Your task to perform on an android device: delete location history Image 0: 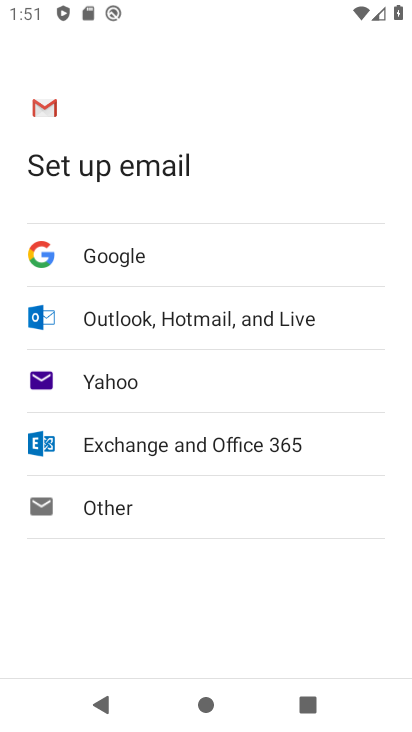
Step 0: press home button
Your task to perform on an android device: delete location history Image 1: 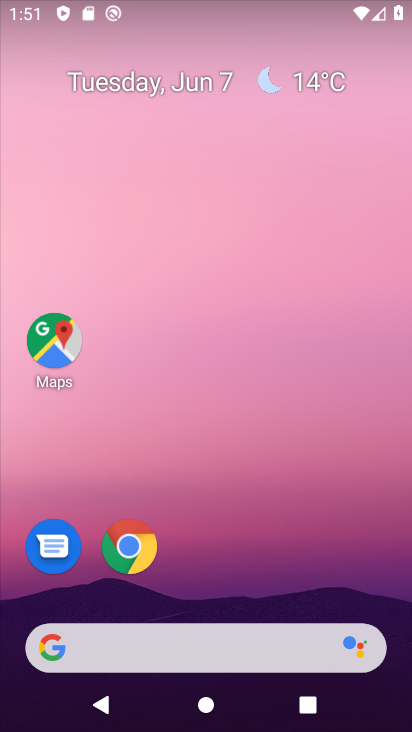
Step 1: click (50, 332)
Your task to perform on an android device: delete location history Image 2: 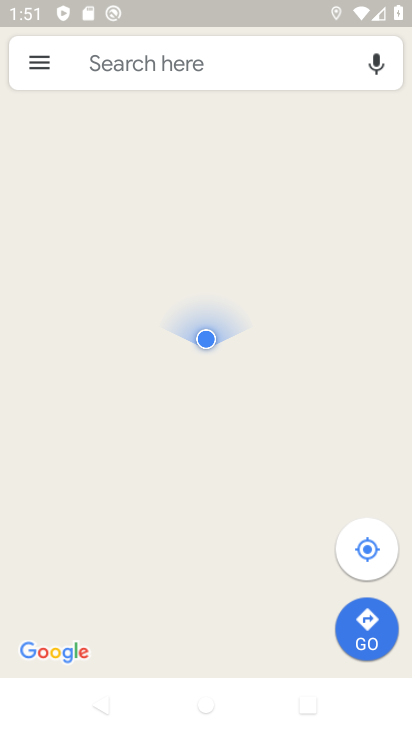
Step 2: click (45, 57)
Your task to perform on an android device: delete location history Image 3: 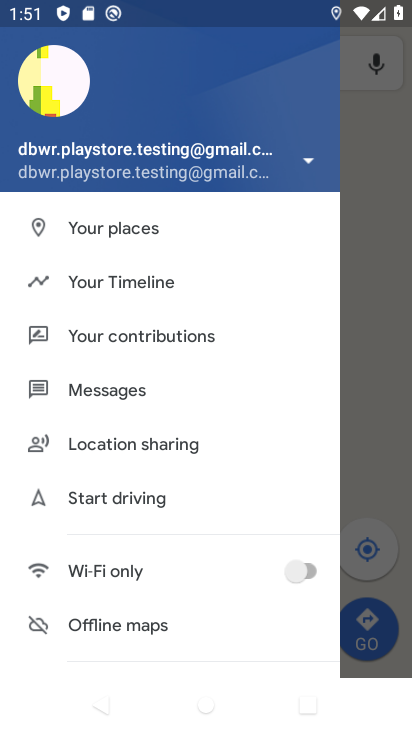
Step 3: click (206, 279)
Your task to perform on an android device: delete location history Image 4: 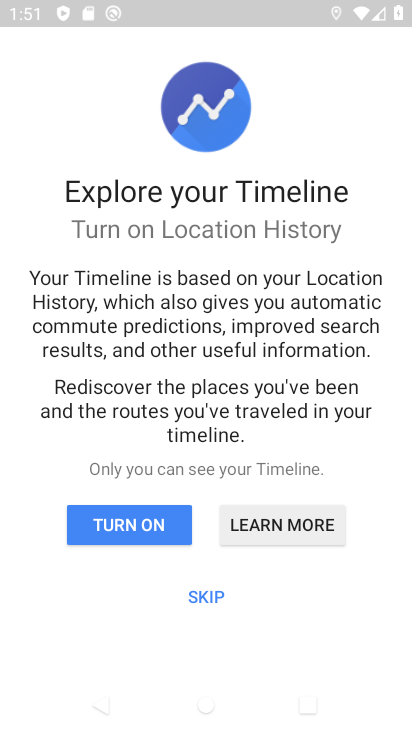
Step 4: click (129, 511)
Your task to perform on an android device: delete location history Image 5: 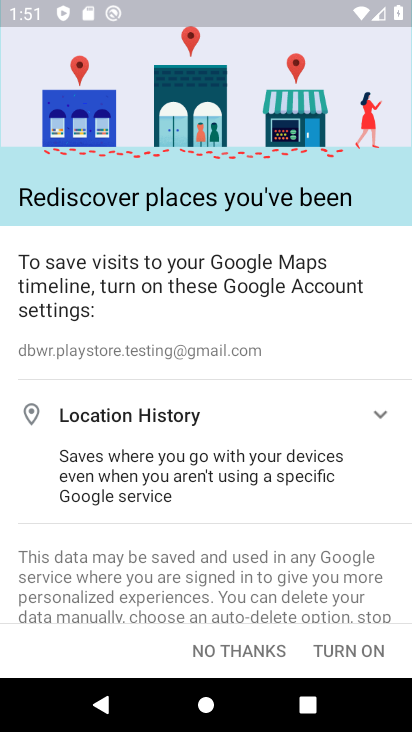
Step 5: click (363, 664)
Your task to perform on an android device: delete location history Image 6: 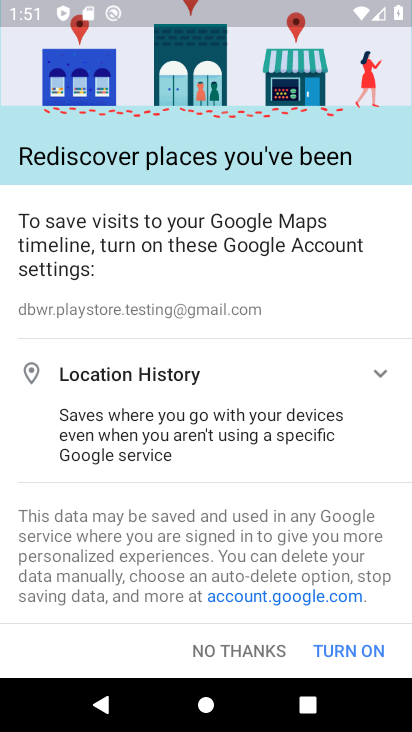
Step 6: click (363, 664)
Your task to perform on an android device: delete location history Image 7: 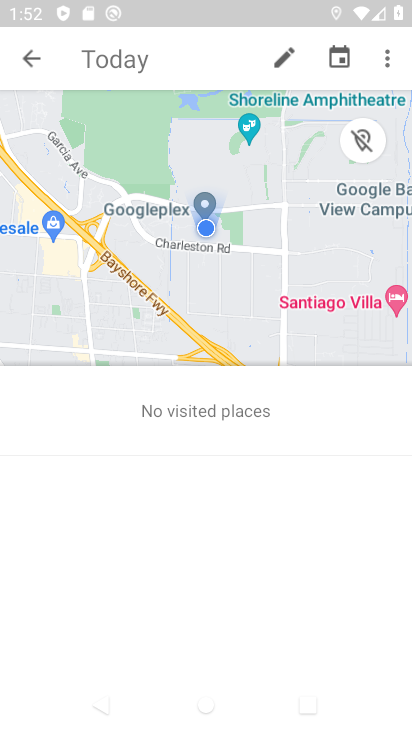
Step 7: click (365, 640)
Your task to perform on an android device: delete location history Image 8: 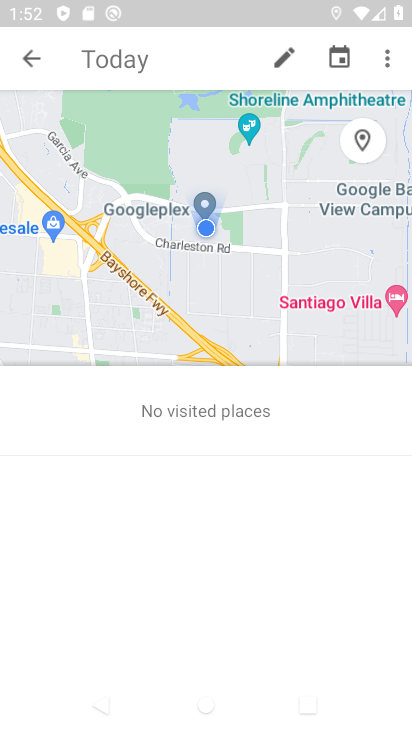
Step 8: click (365, 640)
Your task to perform on an android device: delete location history Image 9: 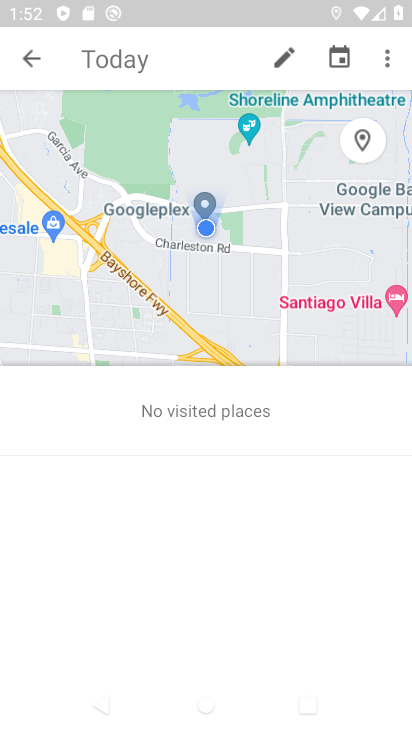
Step 9: click (390, 64)
Your task to perform on an android device: delete location history Image 10: 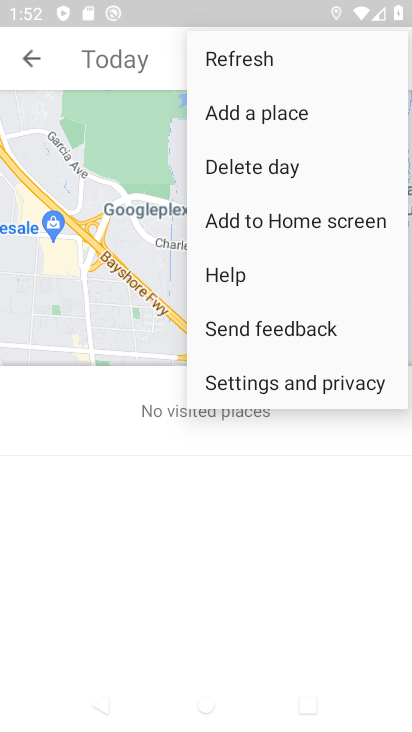
Step 10: click (259, 377)
Your task to perform on an android device: delete location history Image 11: 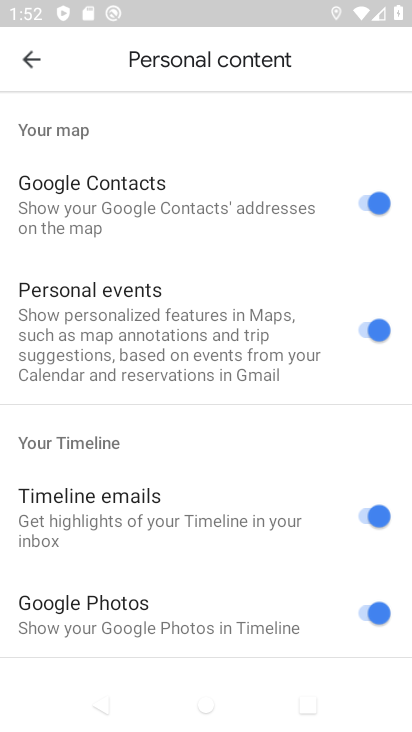
Step 11: click (259, 377)
Your task to perform on an android device: delete location history Image 12: 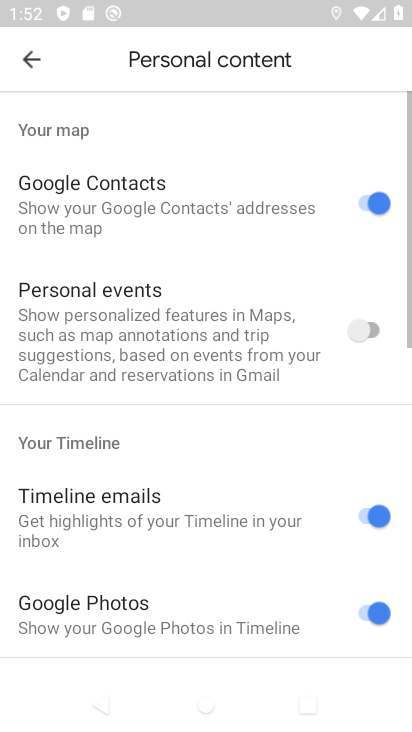
Step 12: drag from (169, 543) to (114, 221)
Your task to perform on an android device: delete location history Image 13: 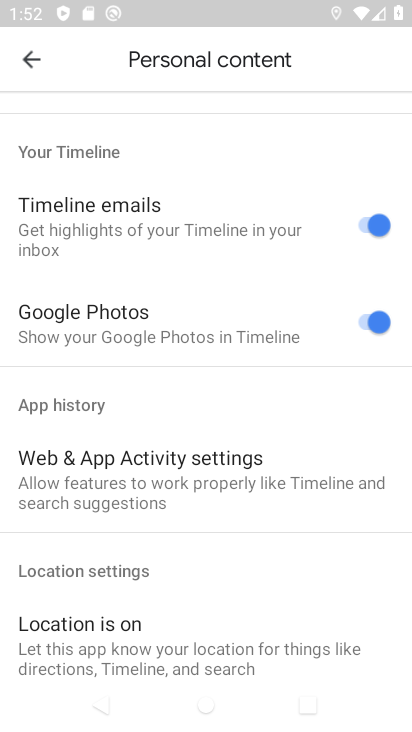
Step 13: drag from (161, 596) to (146, 281)
Your task to perform on an android device: delete location history Image 14: 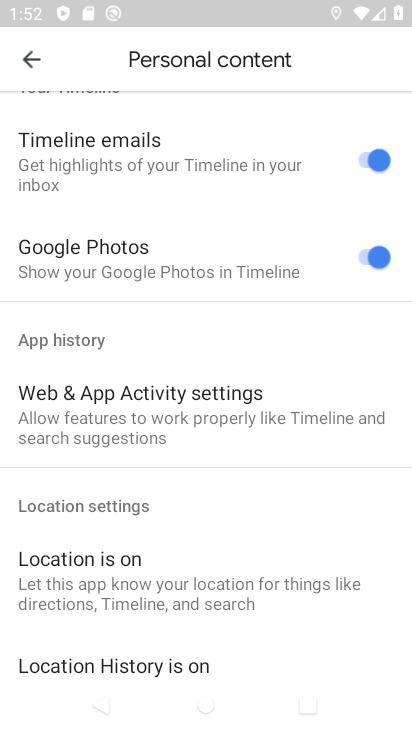
Step 14: drag from (137, 635) to (155, 293)
Your task to perform on an android device: delete location history Image 15: 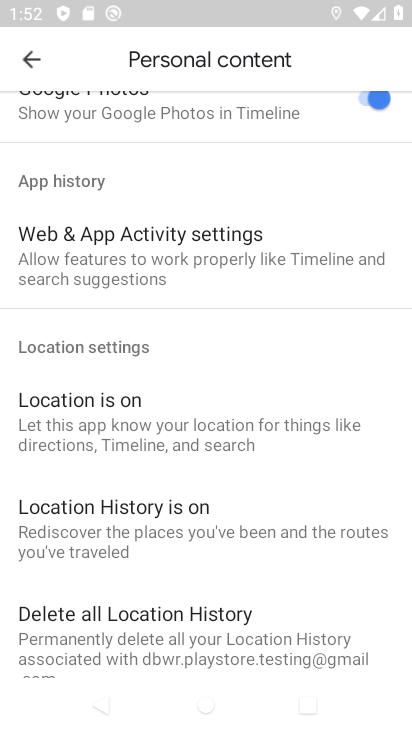
Step 15: click (175, 605)
Your task to perform on an android device: delete location history Image 16: 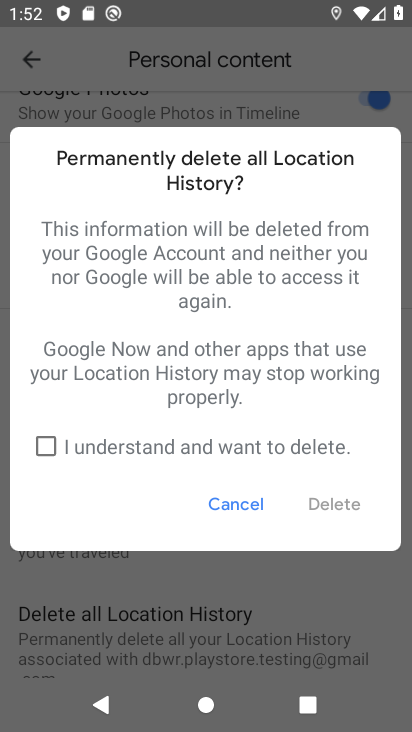
Step 16: click (40, 449)
Your task to perform on an android device: delete location history Image 17: 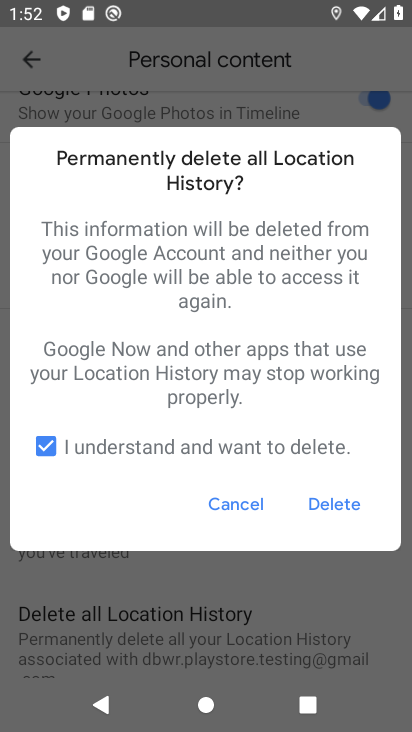
Step 17: click (349, 506)
Your task to perform on an android device: delete location history Image 18: 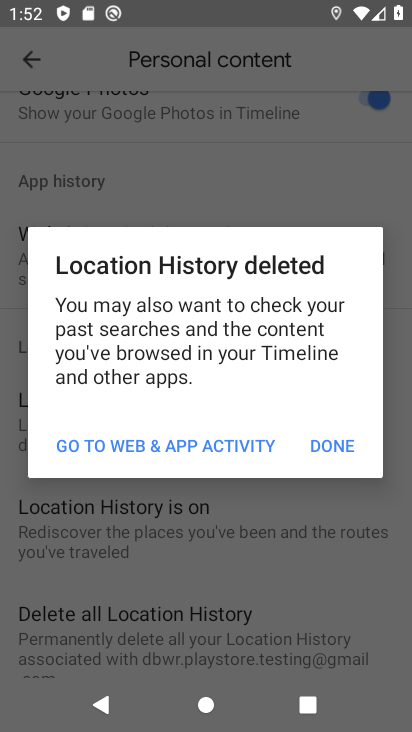
Step 18: click (335, 444)
Your task to perform on an android device: delete location history Image 19: 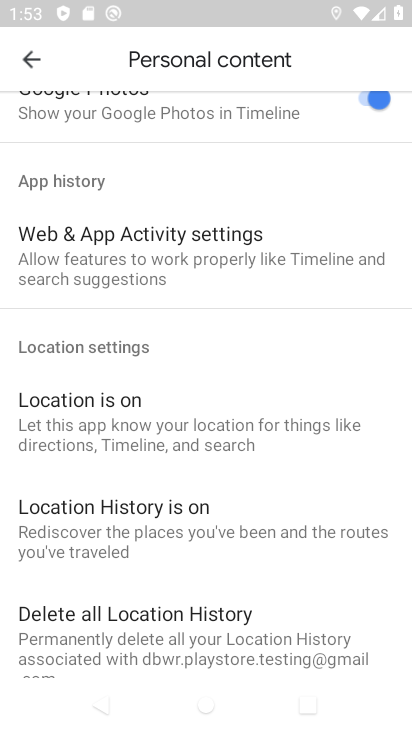
Step 19: task complete